Your task to perform on an android device: Search for 5 star sushi restaurants on Maps Image 0: 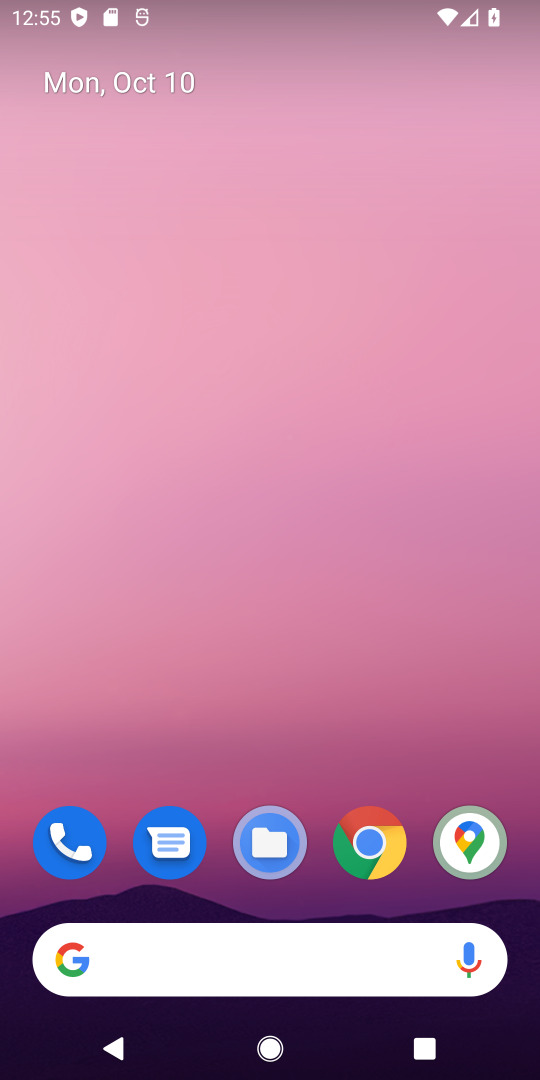
Step 0: click (480, 851)
Your task to perform on an android device: Search for 5 star sushi restaurants on Maps Image 1: 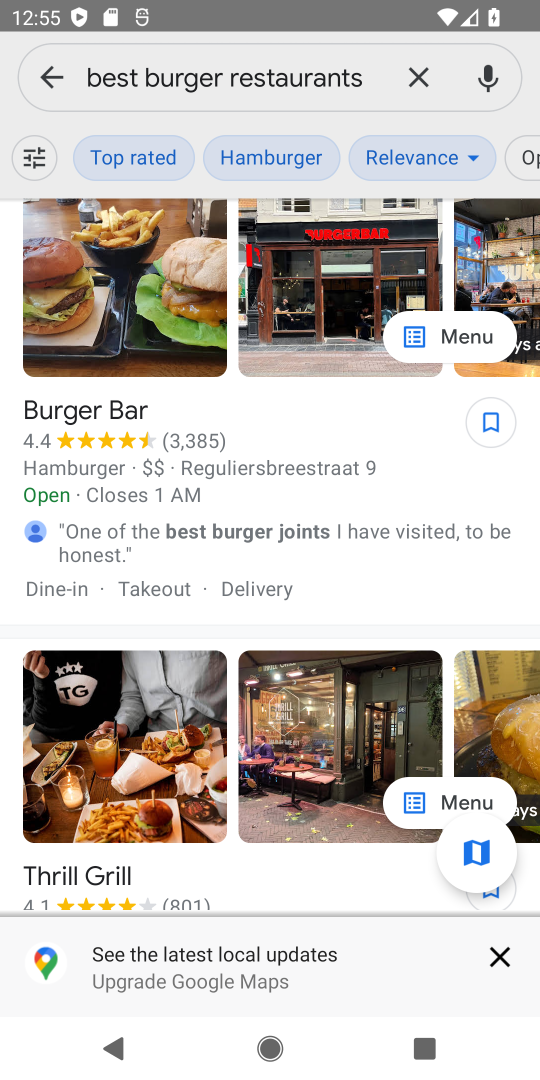
Step 1: click (420, 88)
Your task to perform on an android device: Search for 5 star sushi restaurants on Maps Image 2: 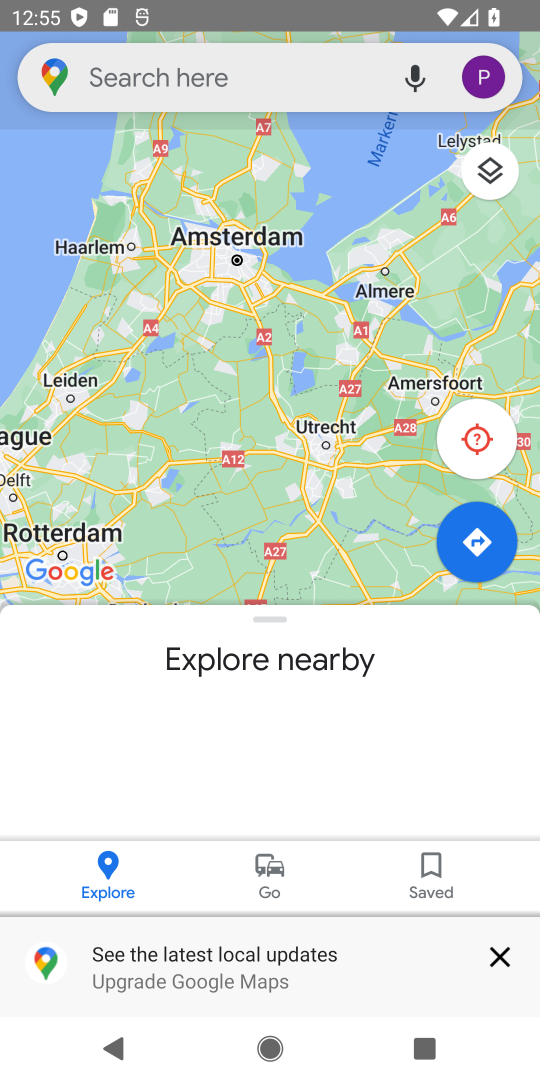
Step 2: click (228, 86)
Your task to perform on an android device: Search for 5 star sushi restaurants on Maps Image 3: 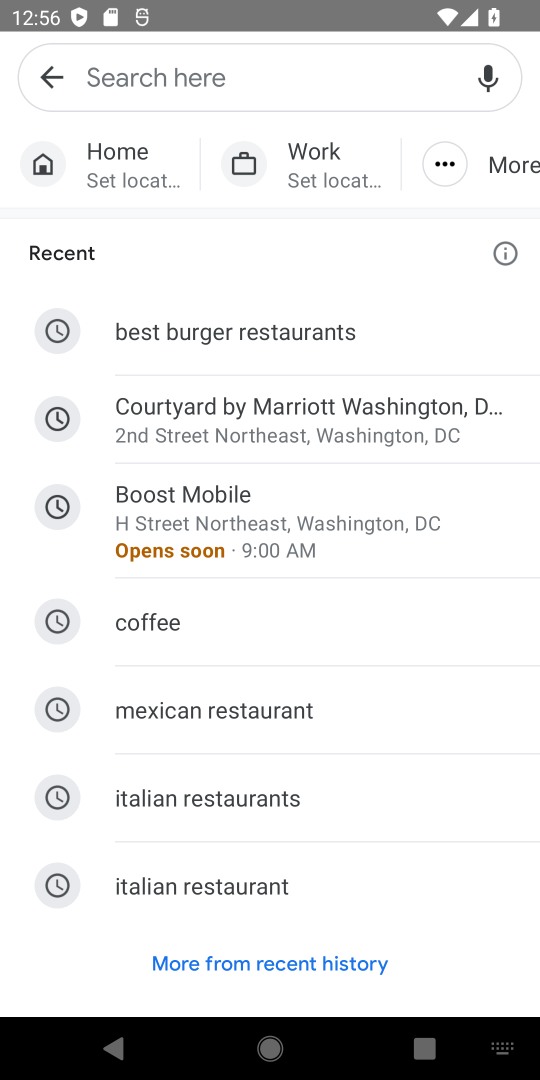
Step 3: type "5 star sushi restaurants"
Your task to perform on an android device: Search for 5 star sushi restaurants on Maps Image 4: 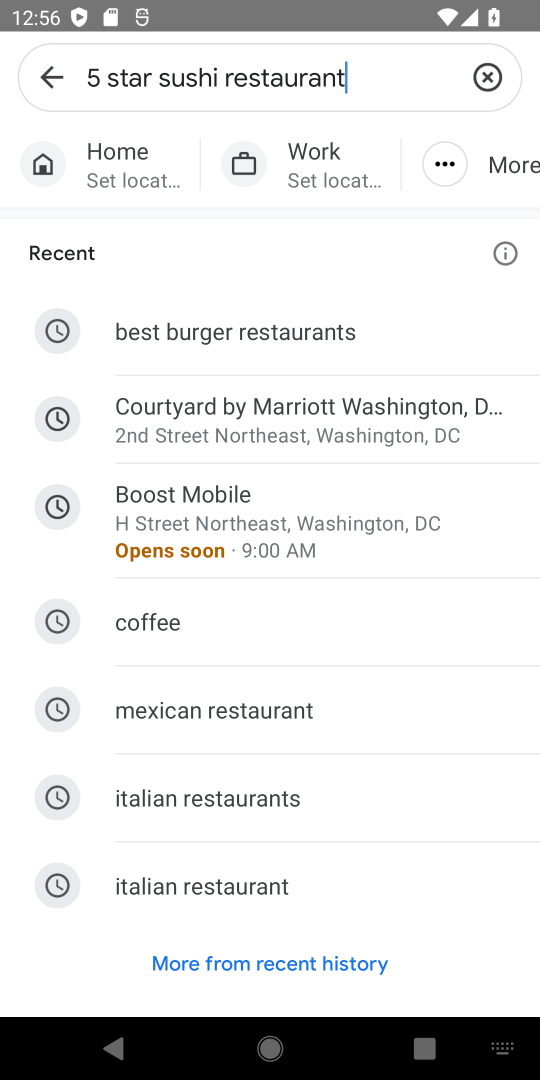
Step 4: type ""
Your task to perform on an android device: Search for 5 star sushi restaurants on Maps Image 5: 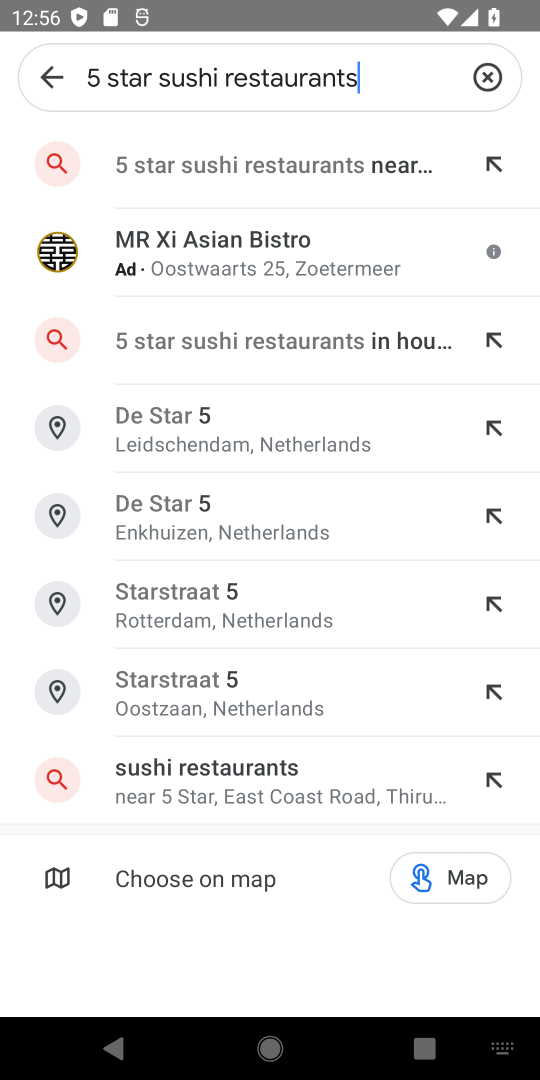
Step 5: press enter
Your task to perform on an android device: Search for 5 star sushi restaurants on Maps Image 6: 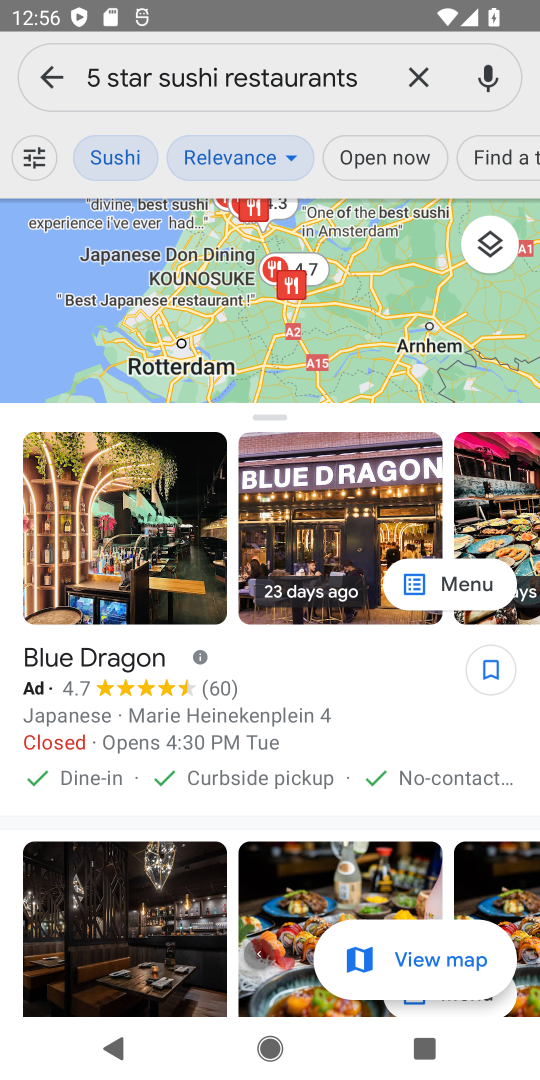
Step 6: task complete